Your task to perform on an android device: When is my next appointment? Image 0: 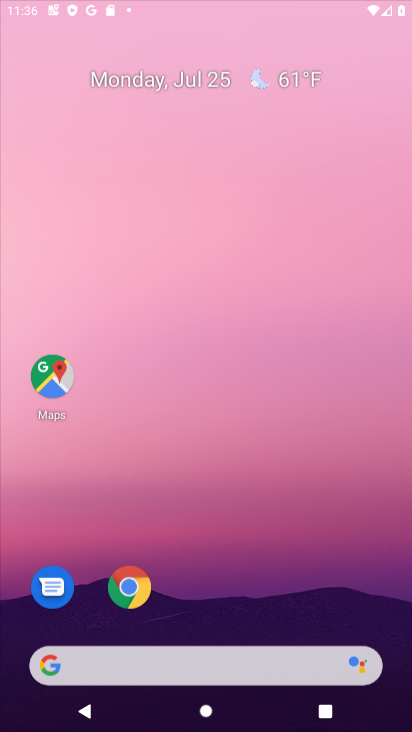
Step 0: press home button
Your task to perform on an android device: When is my next appointment? Image 1: 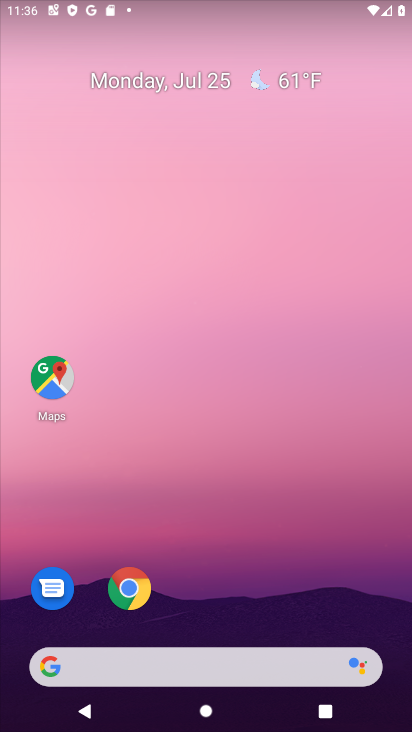
Step 1: drag from (220, 627) to (257, 18)
Your task to perform on an android device: When is my next appointment? Image 2: 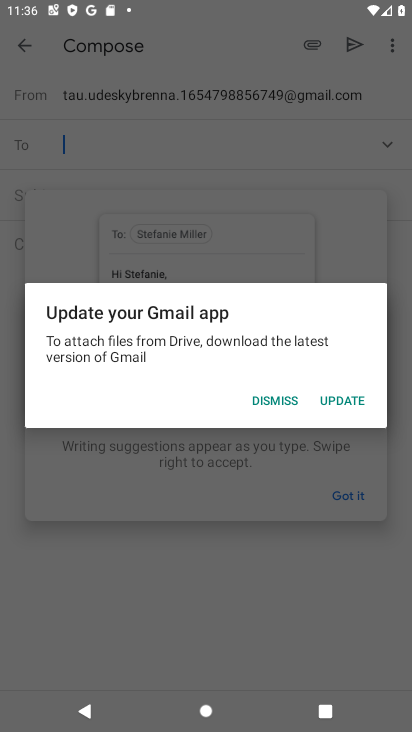
Step 2: press home button
Your task to perform on an android device: When is my next appointment? Image 3: 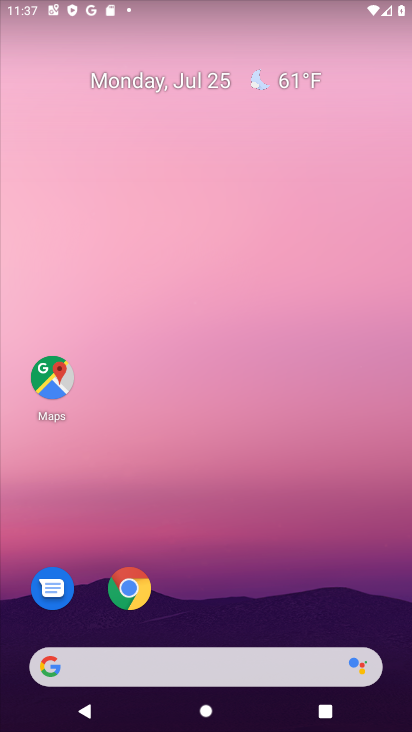
Step 3: drag from (221, 637) to (223, 2)
Your task to perform on an android device: When is my next appointment? Image 4: 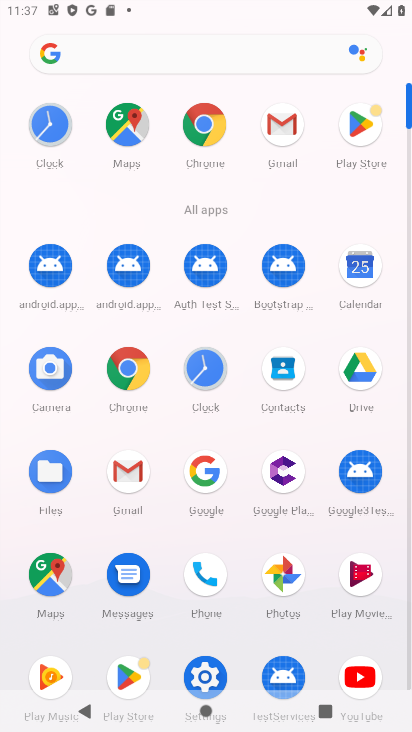
Step 4: click (356, 264)
Your task to perform on an android device: When is my next appointment? Image 5: 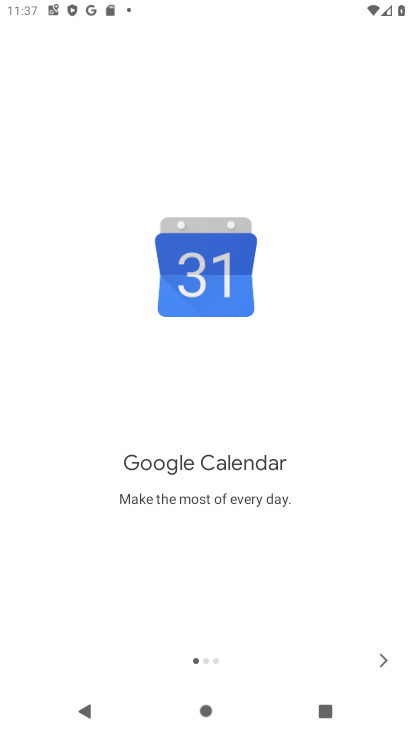
Step 5: click (380, 656)
Your task to perform on an android device: When is my next appointment? Image 6: 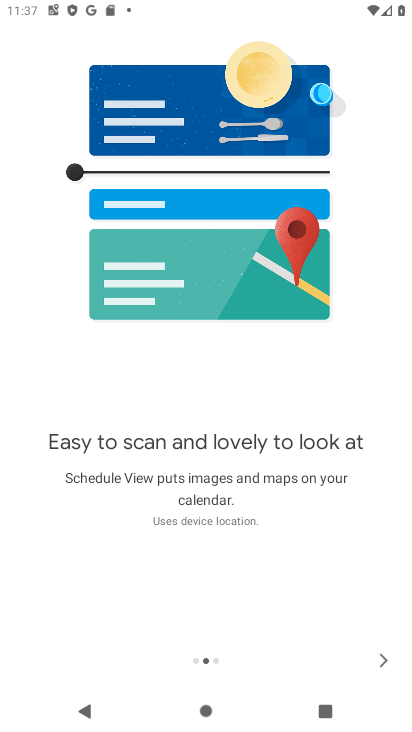
Step 6: click (380, 657)
Your task to perform on an android device: When is my next appointment? Image 7: 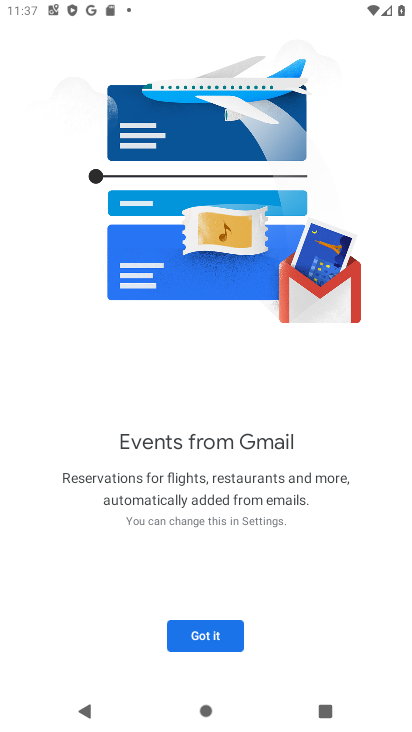
Step 7: click (204, 634)
Your task to perform on an android device: When is my next appointment? Image 8: 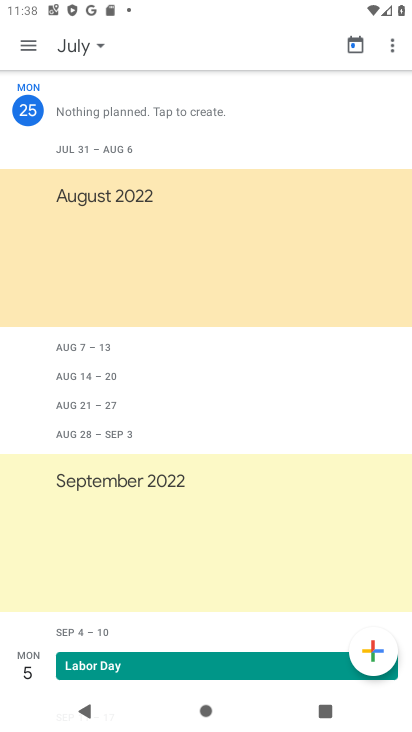
Step 8: click (104, 41)
Your task to perform on an android device: When is my next appointment? Image 9: 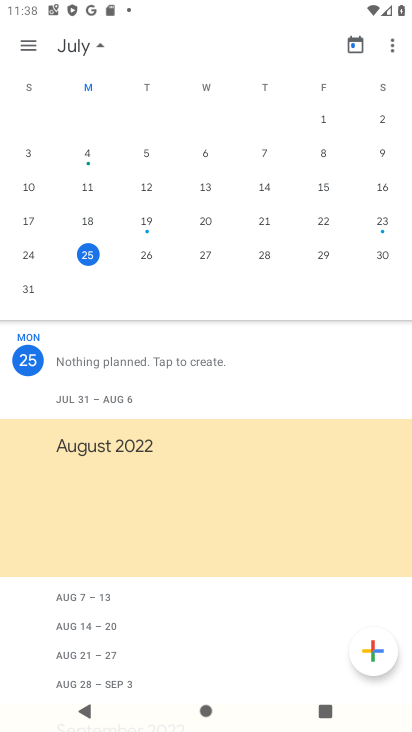
Step 9: click (27, 45)
Your task to perform on an android device: When is my next appointment? Image 10: 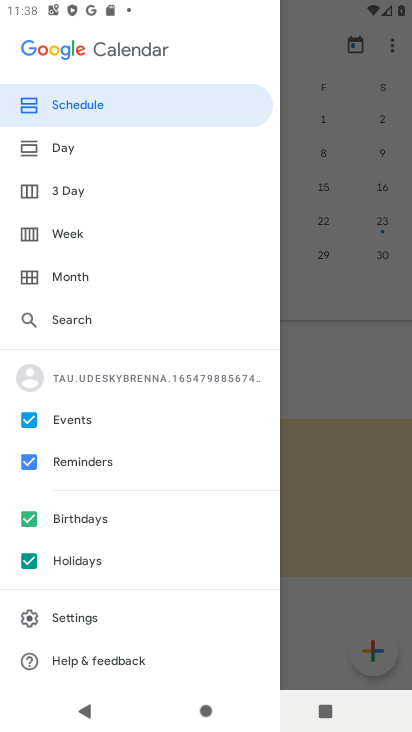
Step 10: click (46, 236)
Your task to perform on an android device: When is my next appointment? Image 11: 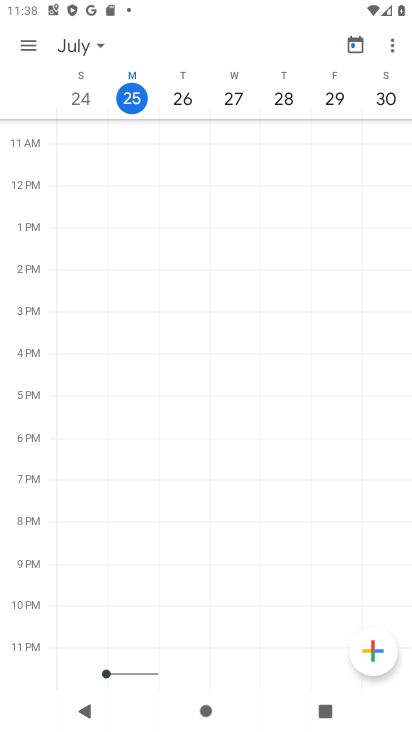
Step 11: click (100, 46)
Your task to perform on an android device: When is my next appointment? Image 12: 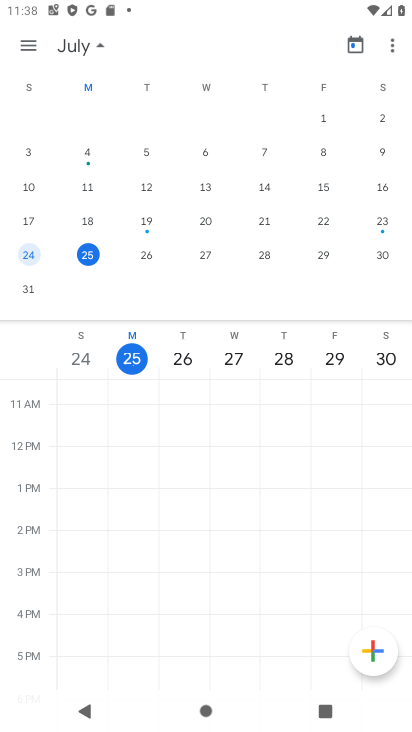
Step 12: click (99, 44)
Your task to perform on an android device: When is my next appointment? Image 13: 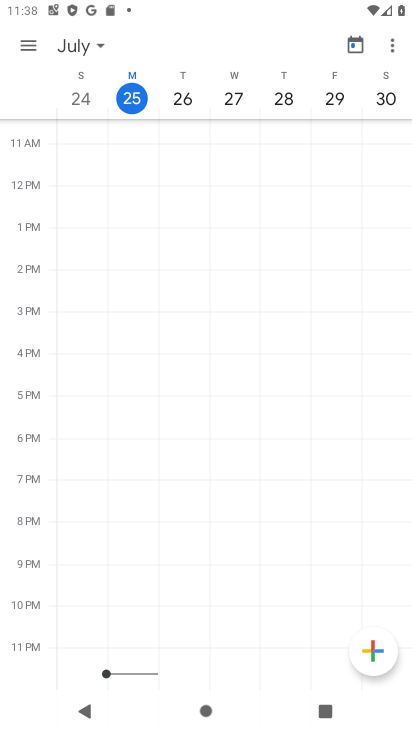
Step 13: click (129, 92)
Your task to perform on an android device: When is my next appointment? Image 14: 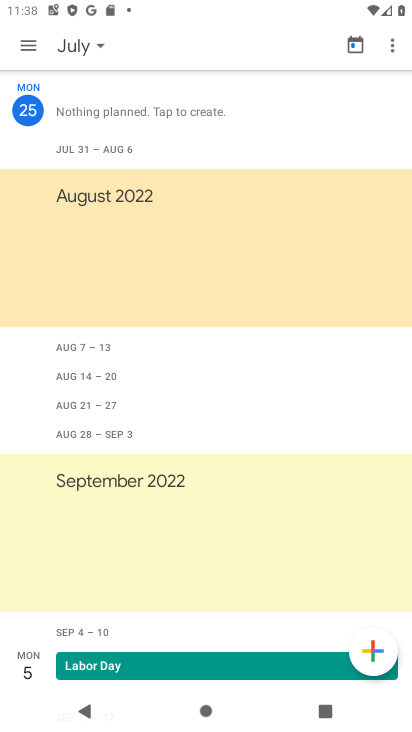
Step 14: click (30, 100)
Your task to perform on an android device: When is my next appointment? Image 15: 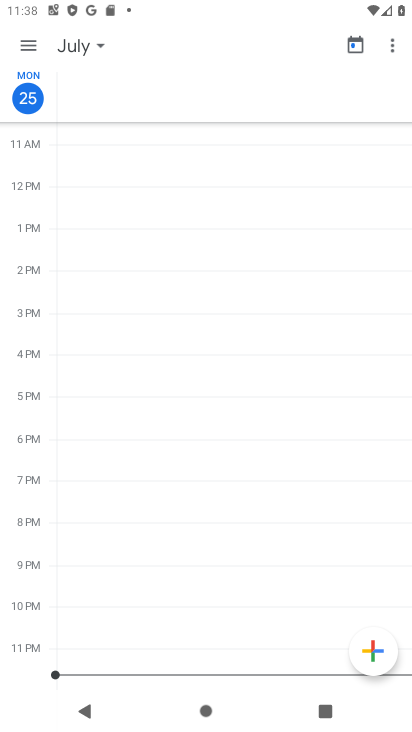
Step 15: click (35, 107)
Your task to perform on an android device: When is my next appointment? Image 16: 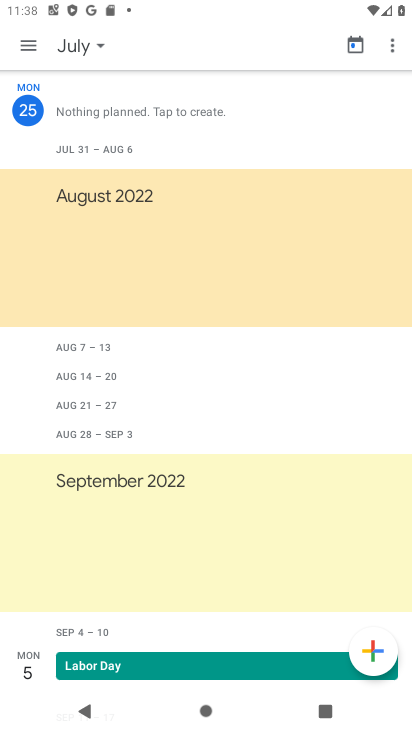
Step 16: task complete